Your task to perform on an android device: toggle wifi Image 0: 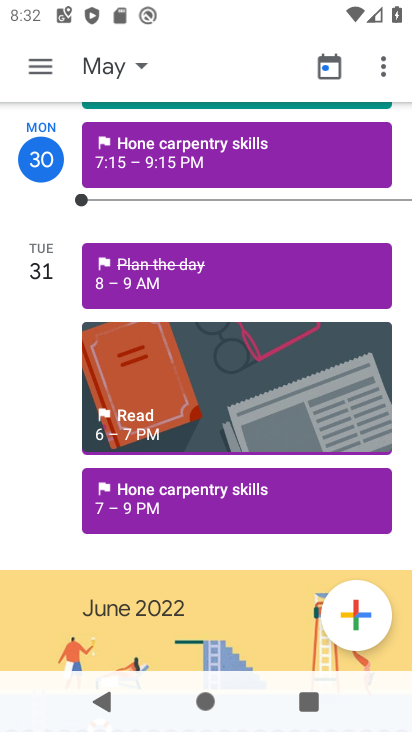
Step 0: press home button
Your task to perform on an android device: toggle wifi Image 1: 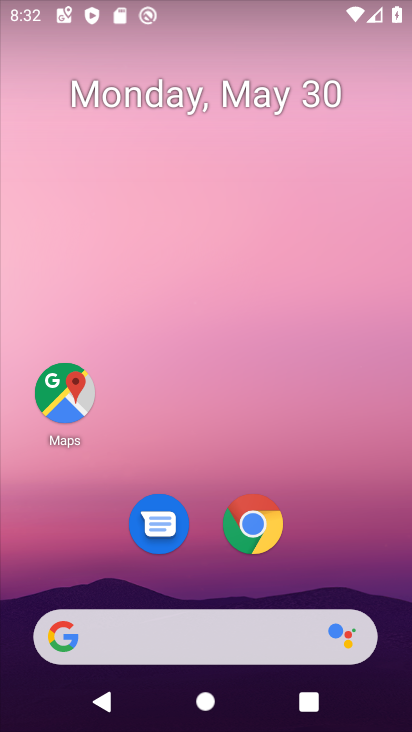
Step 1: drag from (215, 430) to (219, 3)
Your task to perform on an android device: toggle wifi Image 2: 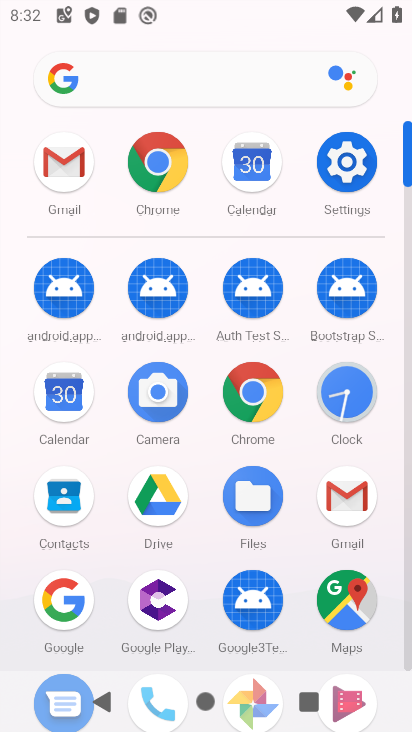
Step 2: click (351, 158)
Your task to perform on an android device: toggle wifi Image 3: 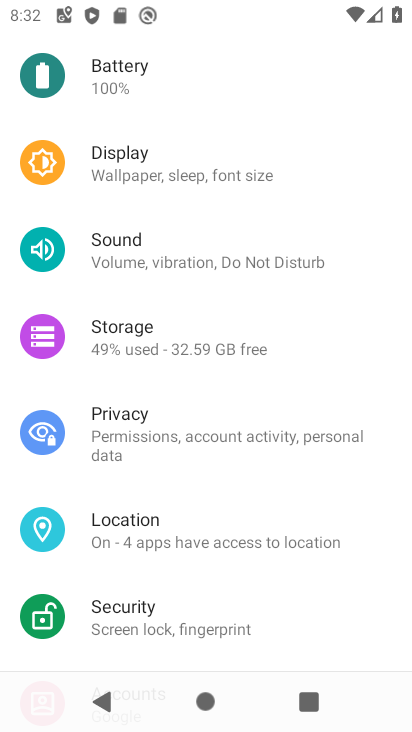
Step 3: drag from (236, 245) to (160, 656)
Your task to perform on an android device: toggle wifi Image 4: 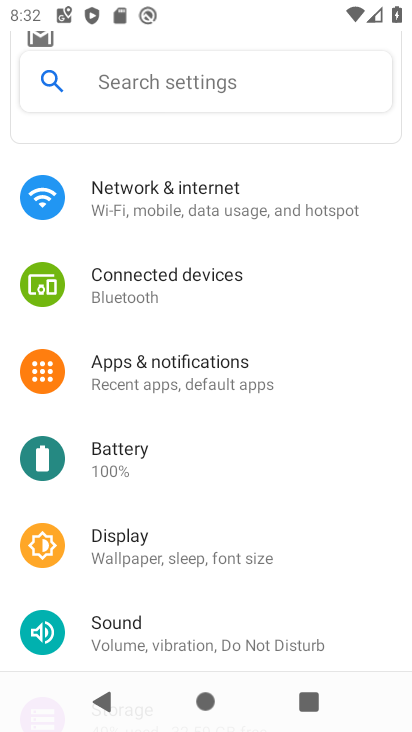
Step 4: click (233, 205)
Your task to perform on an android device: toggle wifi Image 5: 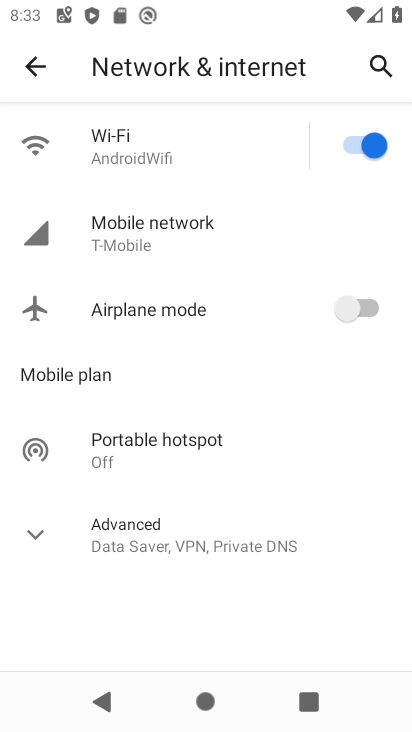
Step 5: click (350, 132)
Your task to perform on an android device: toggle wifi Image 6: 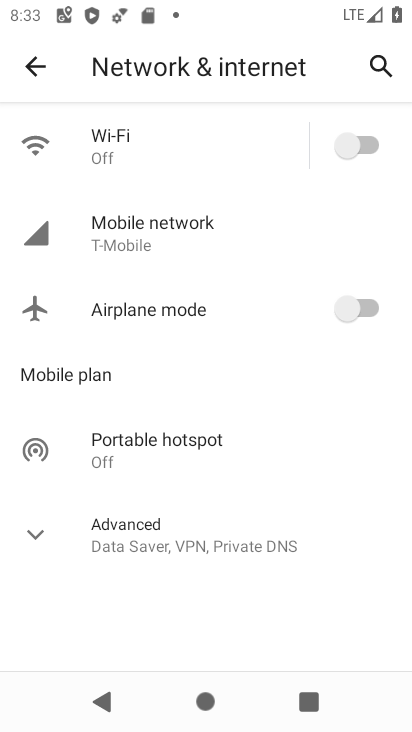
Step 6: task complete